Your task to perform on an android device: turn on bluetooth scan Image 0: 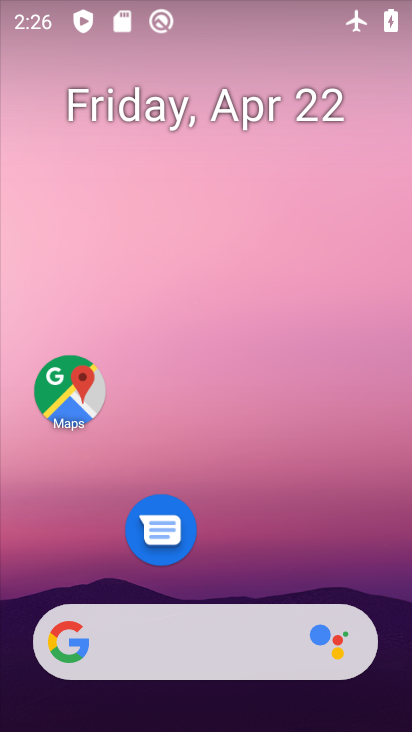
Step 0: drag from (234, 341) to (219, 34)
Your task to perform on an android device: turn on bluetooth scan Image 1: 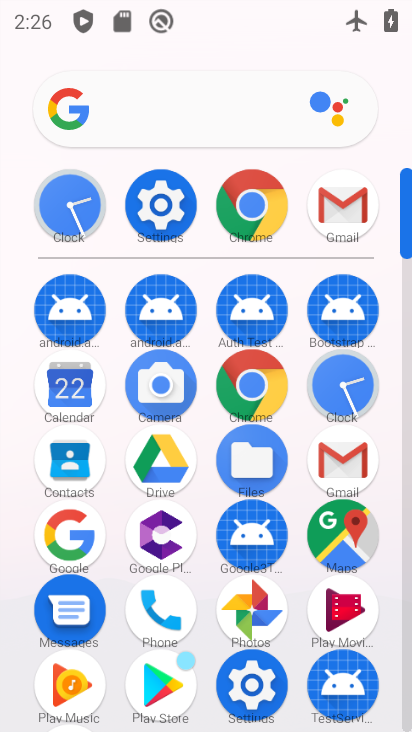
Step 1: click (152, 205)
Your task to perform on an android device: turn on bluetooth scan Image 2: 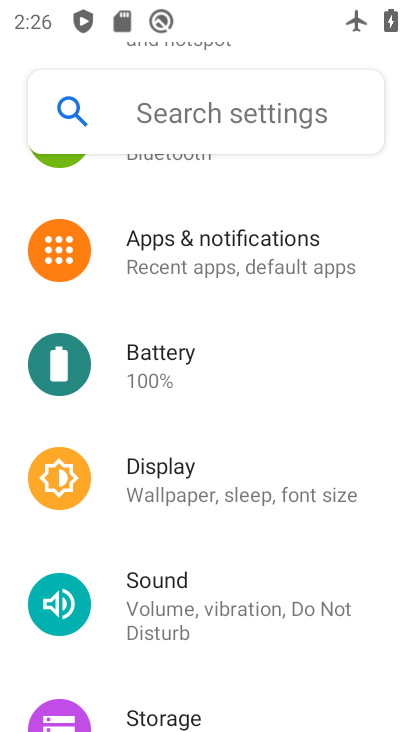
Step 2: drag from (214, 536) to (187, 234)
Your task to perform on an android device: turn on bluetooth scan Image 3: 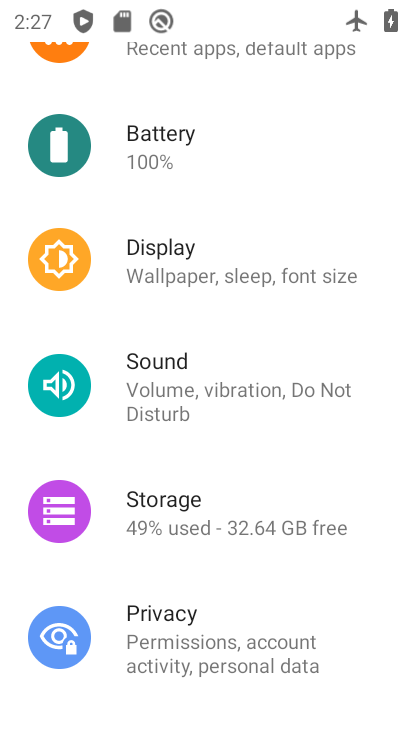
Step 3: drag from (223, 212) to (270, 696)
Your task to perform on an android device: turn on bluetooth scan Image 4: 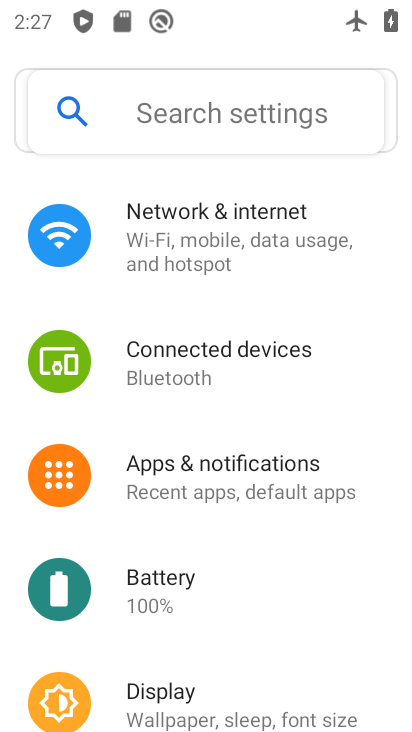
Step 4: drag from (235, 474) to (241, 184)
Your task to perform on an android device: turn on bluetooth scan Image 5: 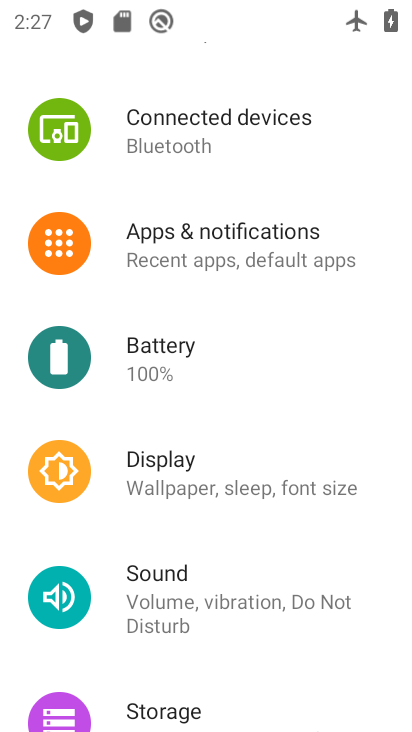
Step 5: drag from (199, 413) to (207, 218)
Your task to perform on an android device: turn on bluetooth scan Image 6: 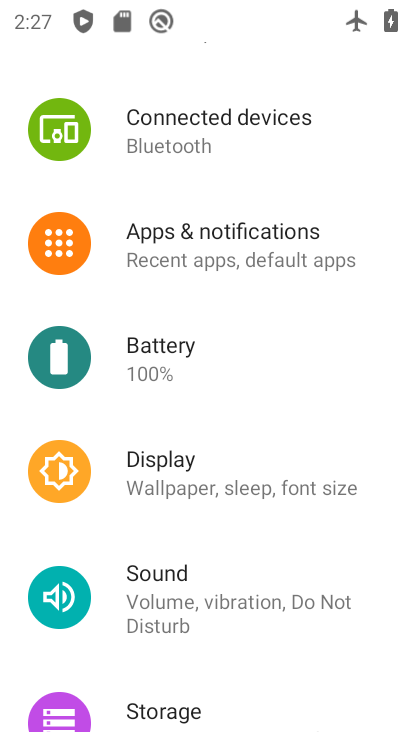
Step 6: drag from (220, 539) to (229, 179)
Your task to perform on an android device: turn on bluetooth scan Image 7: 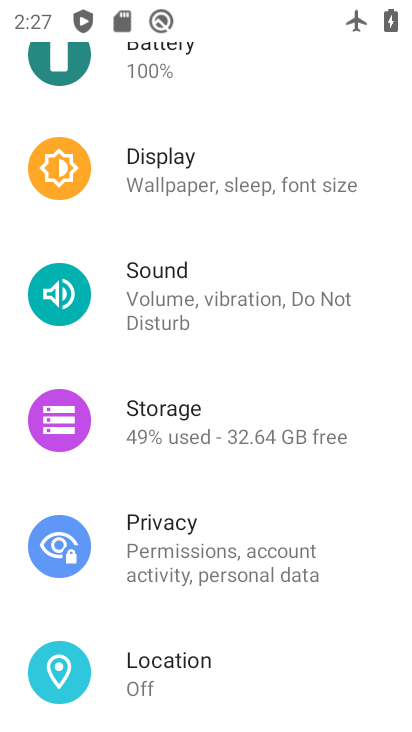
Step 7: drag from (235, 622) to (271, 302)
Your task to perform on an android device: turn on bluetooth scan Image 8: 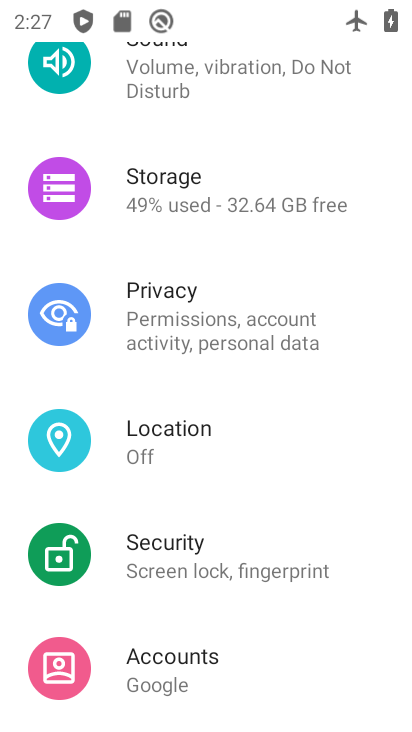
Step 8: click (156, 426)
Your task to perform on an android device: turn on bluetooth scan Image 9: 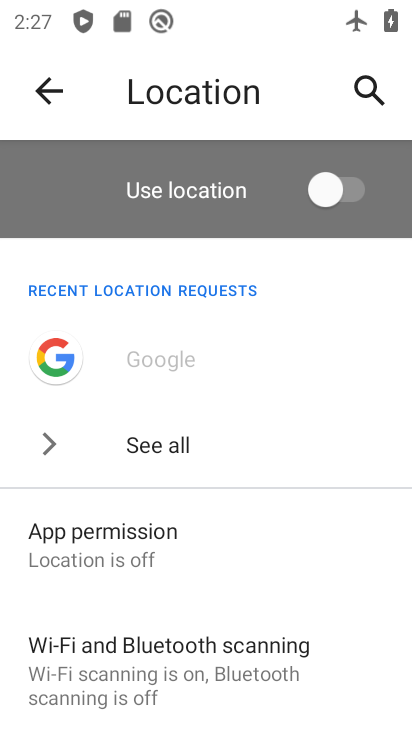
Step 9: drag from (179, 575) to (195, 277)
Your task to perform on an android device: turn on bluetooth scan Image 10: 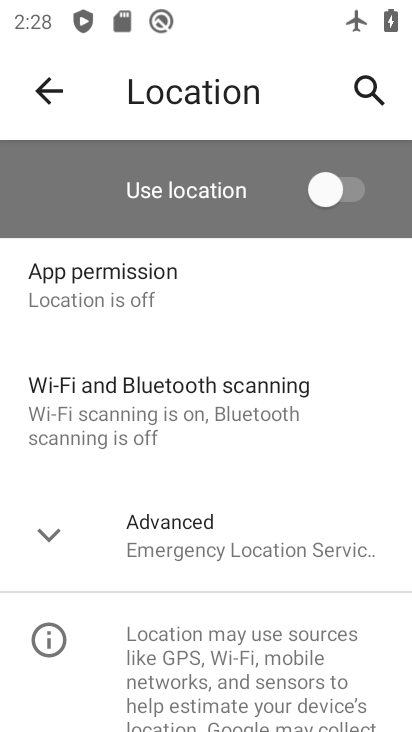
Step 10: click (145, 399)
Your task to perform on an android device: turn on bluetooth scan Image 11: 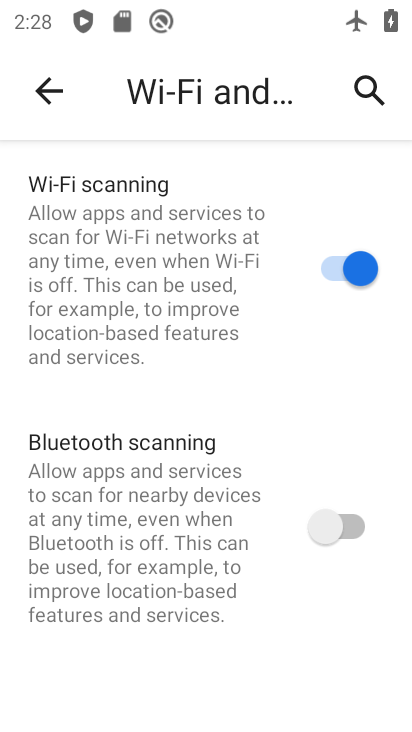
Step 11: drag from (168, 553) to (175, 422)
Your task to perform on an android device: turn on bluetooth scan Image 12: 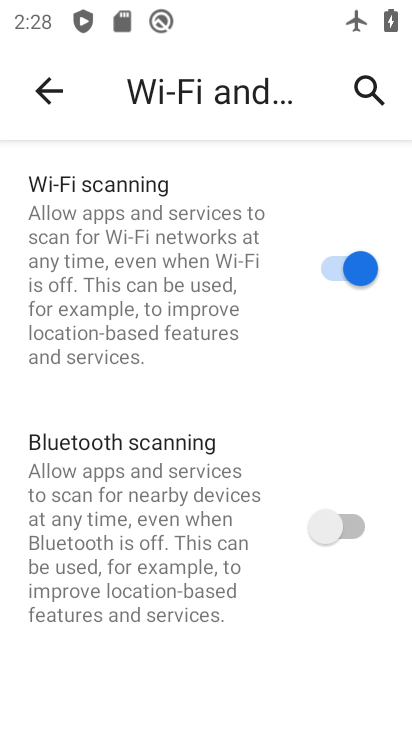
Step 12: click (324, 532)
Your task to perform on an android device: turn on bluetooth scan Image 13: 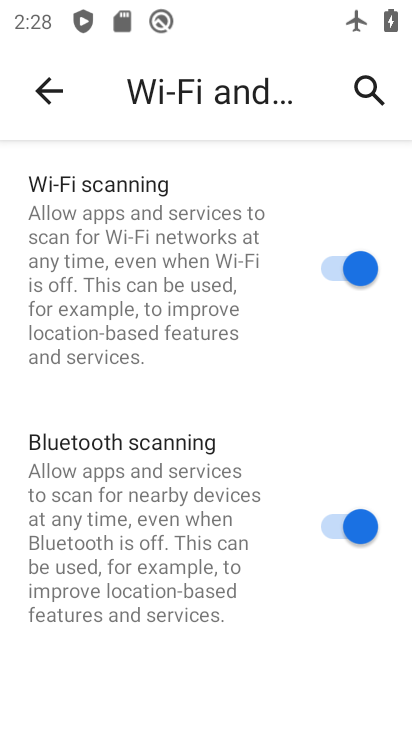
Step 13: task complete